Your task to perform on an android device: delete the emails in spam in the gmail app Image 0: 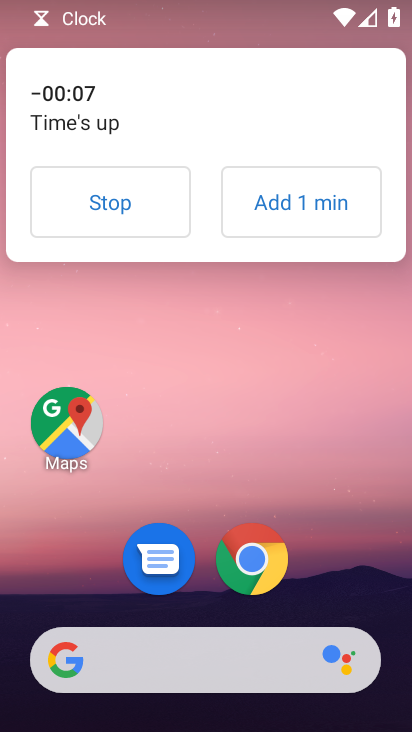
Step 0: click (164, 214)
Your task to perform on an android device: delete the emails in spam in the gmail app Image 1: 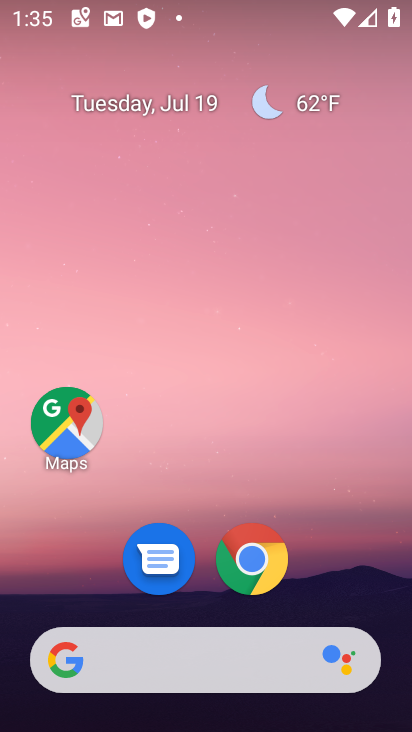
Step 1: drag from (275, 574) to (302, 126)
Your task to perform on an android device: delete the emails in spam in the gmail app Image 2: 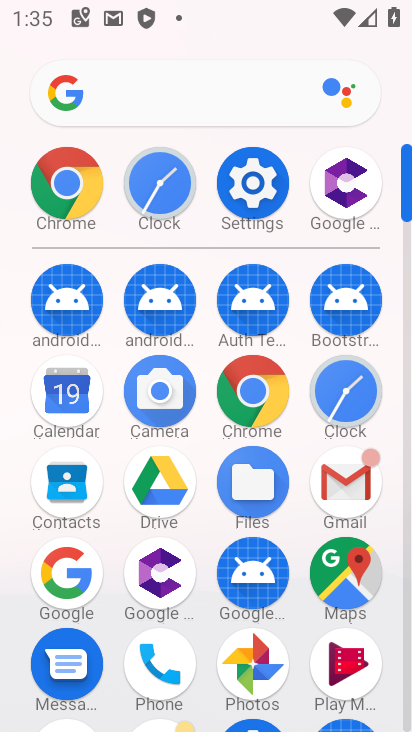
Step 2: click (335, 487)
Your task to perform on an android device: delete the emails in spam in the gmail app Image 3: 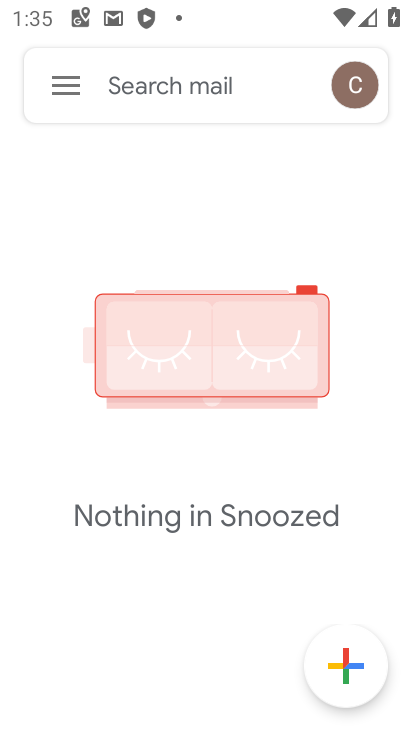
Step 3: click (95, 75)
Your task to perform on an android device: delete the emails in spam in the gmail app Image 4: 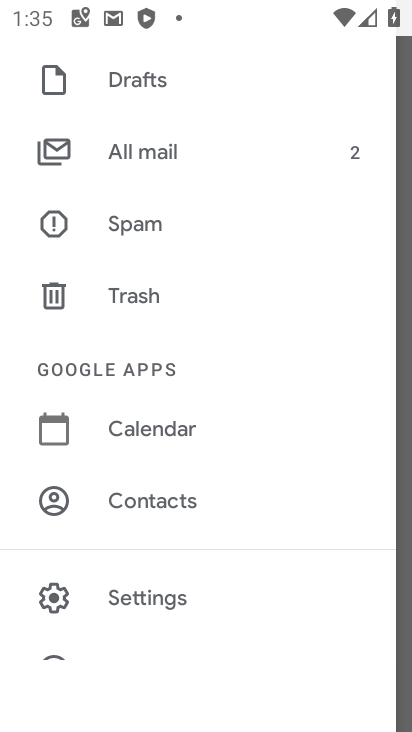
Step 4: click (151, 145)
Your task to perform on an android device: delete the emails in spam in the gmail app Image 5: 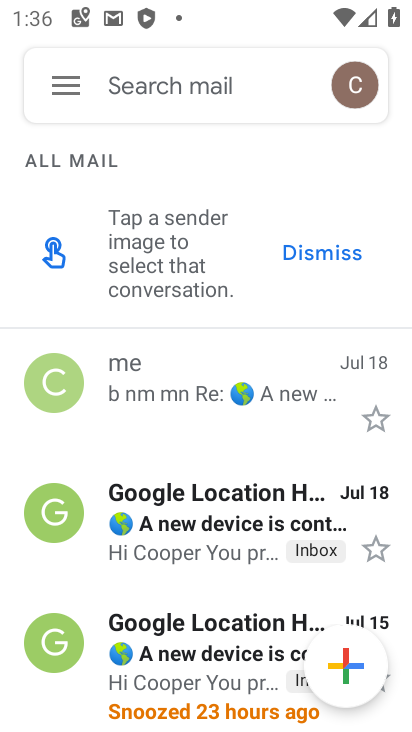
Step 5: click (221, 491)
Your task to perform on an android device: delete the emails in spam in the gmail app Image 6: 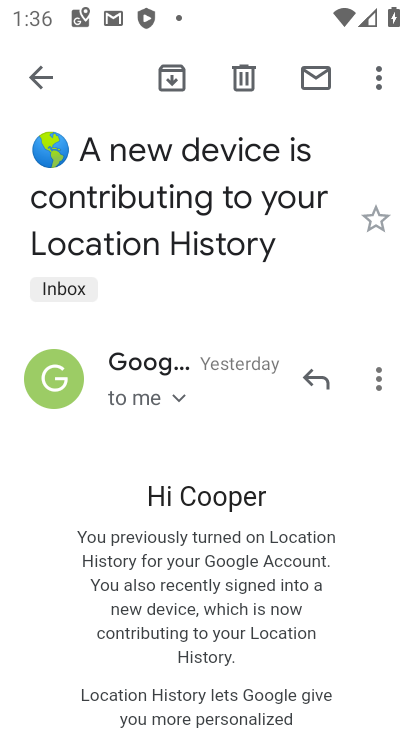
Step 6: click (243, 90)
Your task to perform on an android device: delete the emails in spam in the gmail app Image 7: 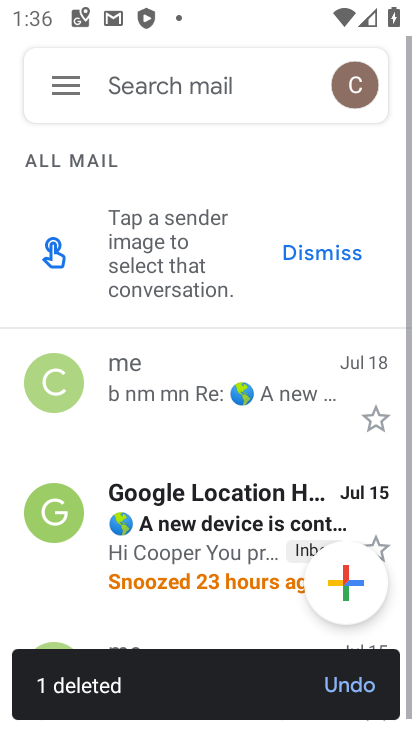
Step 7: task complete